Your task to perform on an android device: Go to battery settings Image 0: 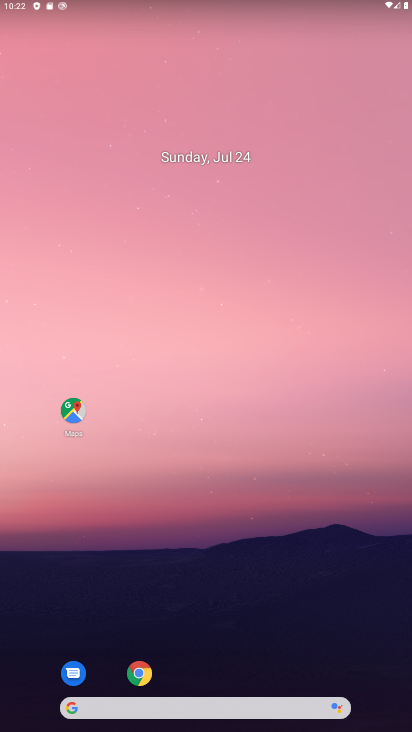
Step 0: drag from (260, 602) to (256, 344)
Your task to perform on an android device: Go to battery settings Image 1: 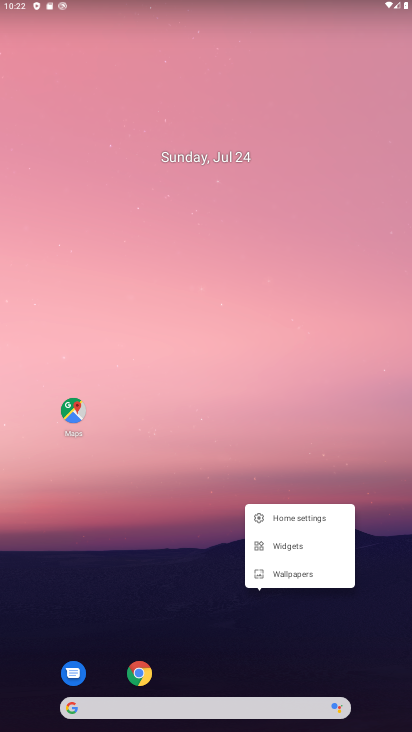
Step 1: click (201, 589)
Your task to perform on an android device: Go to battery settings Image 2: 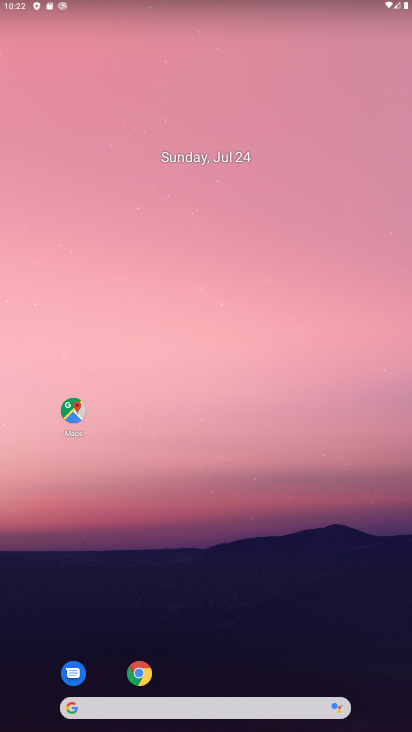
Step 2: drag from (201, 589) to (218, 289)
Your task to perform on an android device: Go to battery settings Image 3: 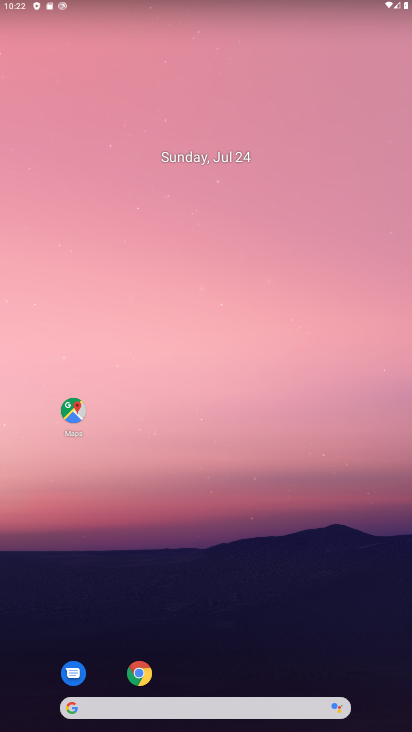
Step 3: drag from (271, 602) to (258, 256)
Your task to perform on an android device: Go to battery settings Image 4: 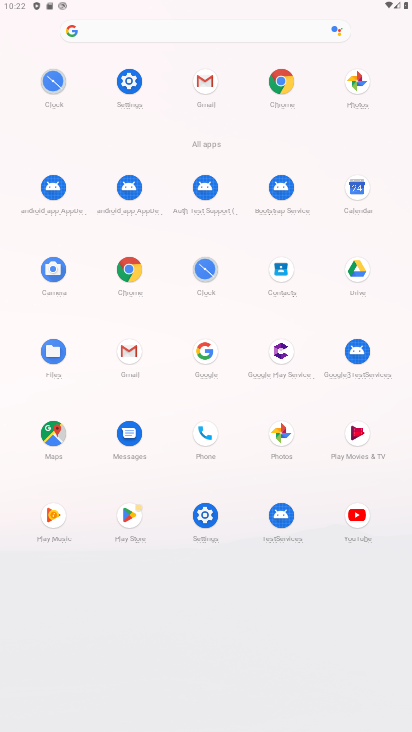
Step 4: click (205, 523)
Your task to perform on an android device: Go to battery settings Image 5: 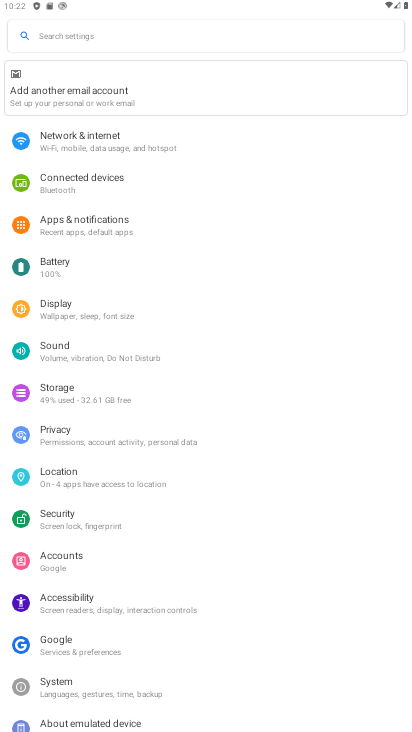
Step 5: click (60, 266)
Your task to perform on an android device: Go to battery settings Image 6: 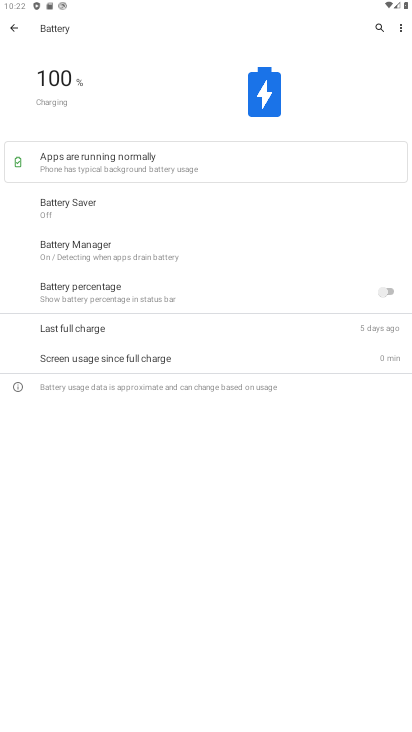
Step 6: task complete